Your task to perform on an android device: Open privacy settings Image 0: 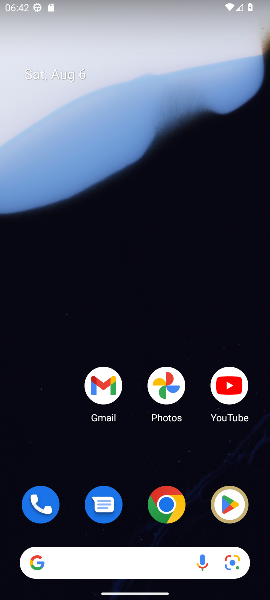
Step 0: drag from (161, 560) to (190, 278)
Your task to perform on an android device: Open privacy settings Image 1: 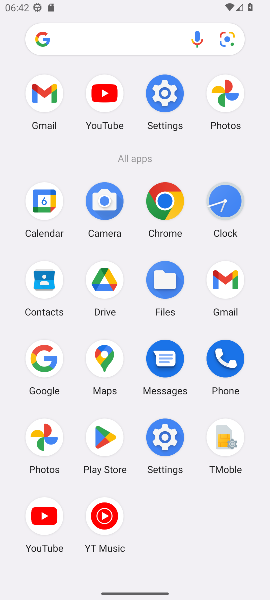
Step 1: click (163, 92)
Your task to perform on an android device: Open privacy settings Image 2: 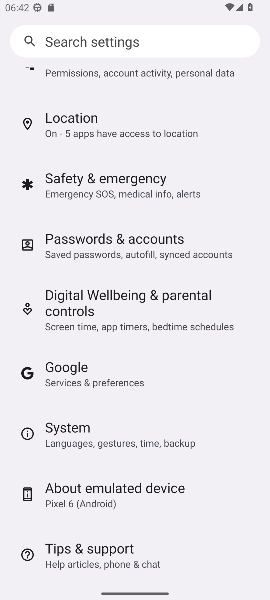
Step 2: drag from (130, 155) to (121, 294)
Your task to perform on an android device: Open privacy settings Image 3: 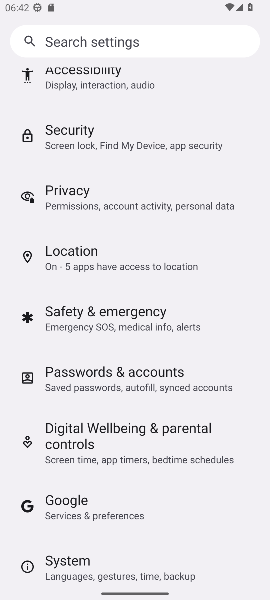
Step 3: click (122, 207)
Your task to perform on an android device: Open privacy settings Image 4: 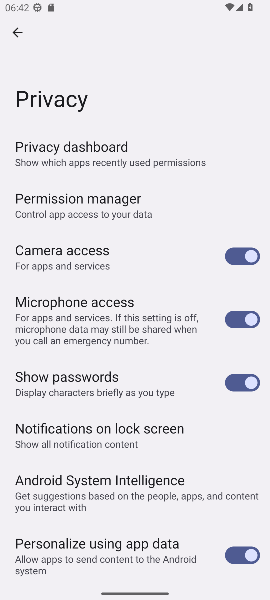
Step 4: task complete